Your task to perform on an android device: Search for sushi restaurants on Maps Image 0: 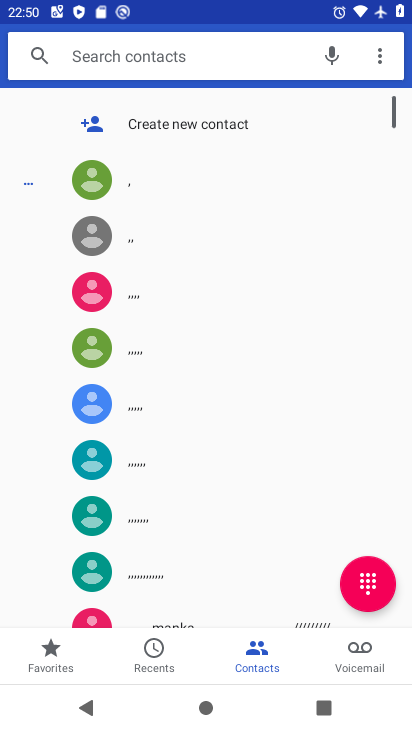
Step 0: press home button
Your task to perform on an android device: Search for sushi restaurants on Maps Image 1: 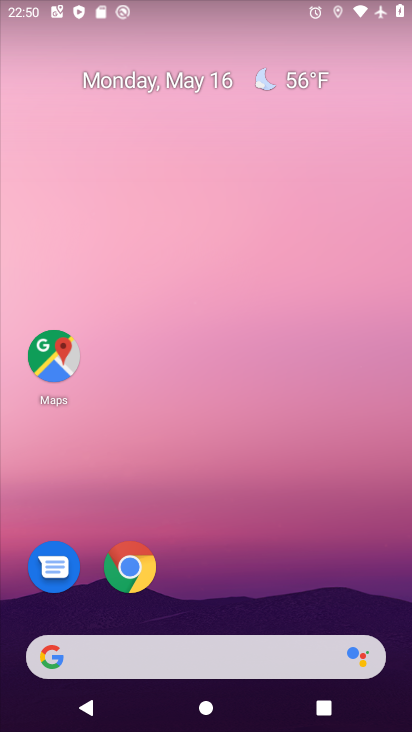
Step 1: click (51, 347)
Your task to perform on an android device: Search for sushi restaurants on Maps Image 2: 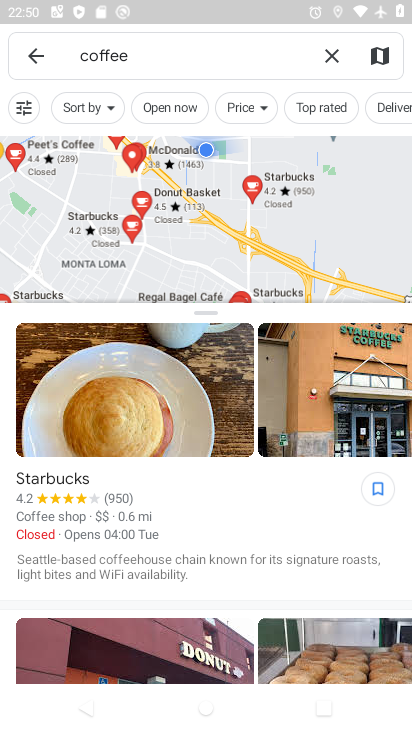
Step 2: click (338, 50)
Your task to perform on an android device: Search for sushi restaurants on Maps Image 3: 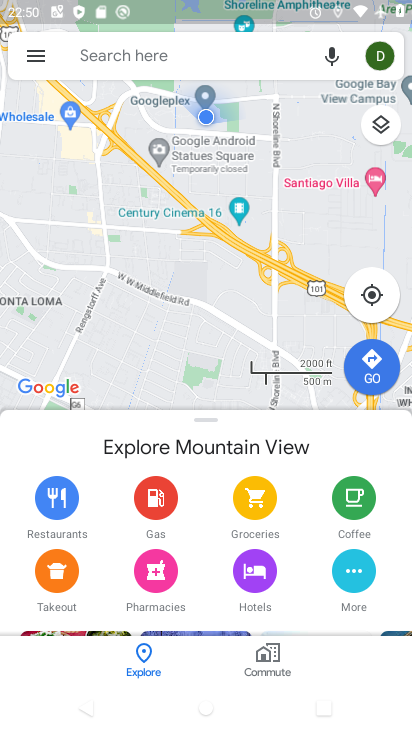
Step 3: click (216, 44)
Your task to perform on an android device: Search for sushi restaurants on Maps Image 4: 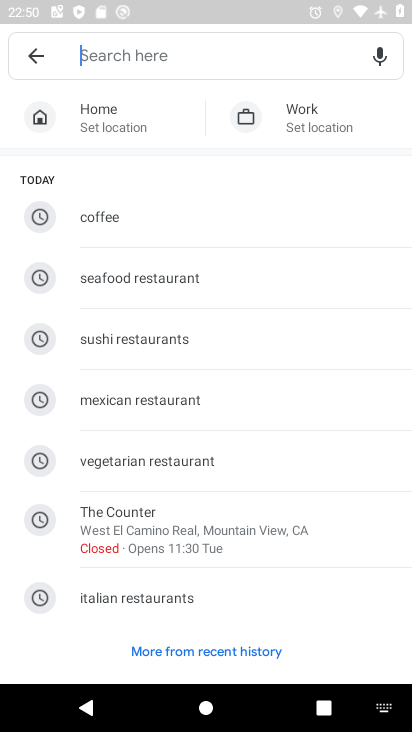
Step 4: click (144, 335)
Your task to perform on an android device: Search for sushi restaurants on Maps Image 5: 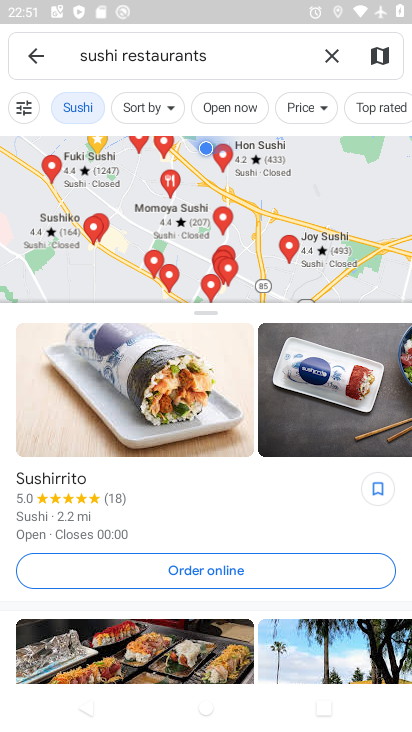
Step 5: task complete